Your task to perform on an android device: Do I have any events this weekend? Image 0: 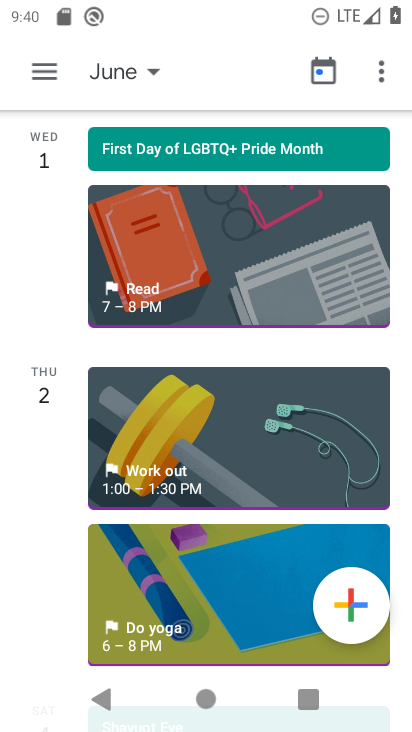
Step 0: press home button
Your task to perform on an android device: Do I have any events this weekend? Image 1: 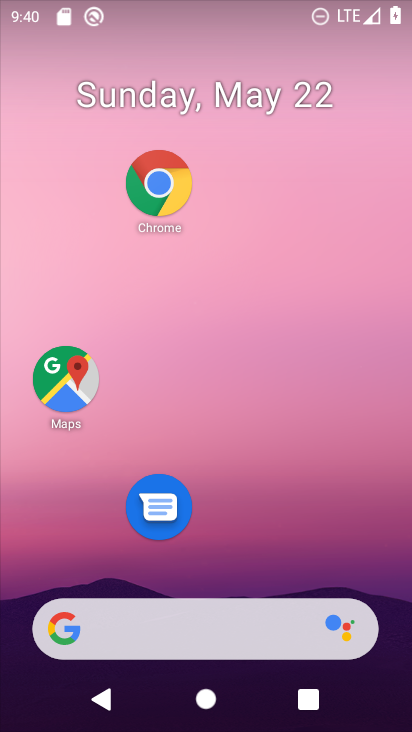
Step 1: drag from (262, 700) to (307, 201)
Your task to perform on an android device: Do I have any events this weekend? Image 2: 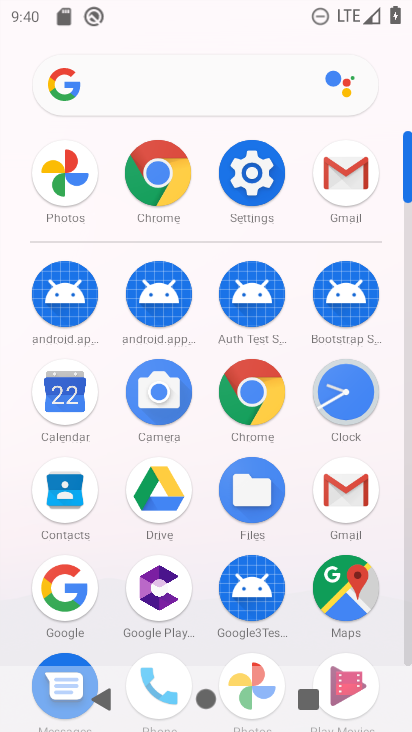
Step 2: click (69, 391)
Your task to perform on an android device: Do I have any events this weekend? Image 3: 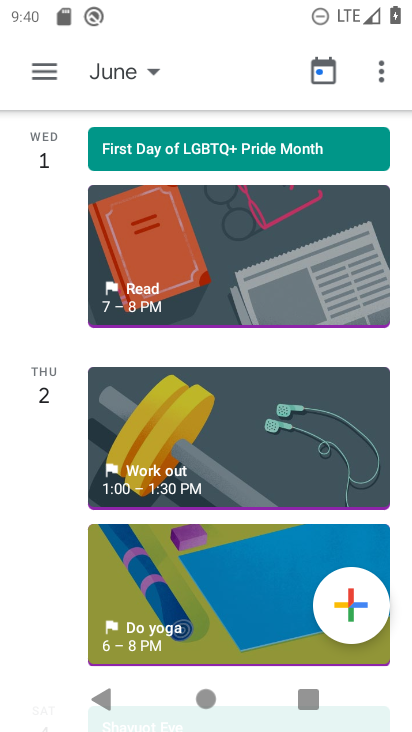
Step 3: task complete